Your task to perform on an android device: Open Google Chrome and click the shortcut for Amazon.com Image 0: 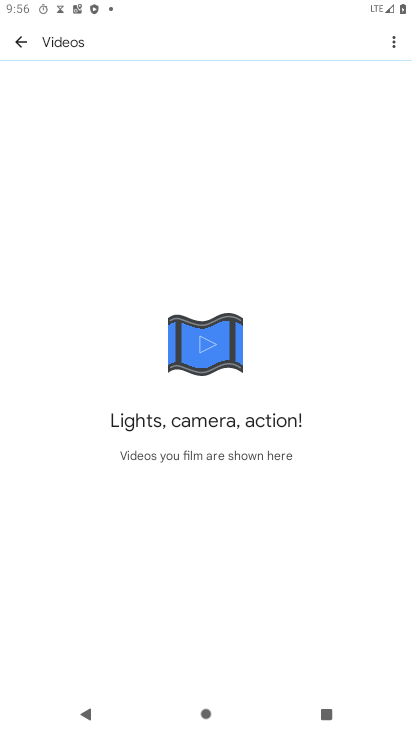
Step 0: press home button
Your task to perform on an android device: Open Google Chrome and click the shortcut for Amazon.com Image 1: 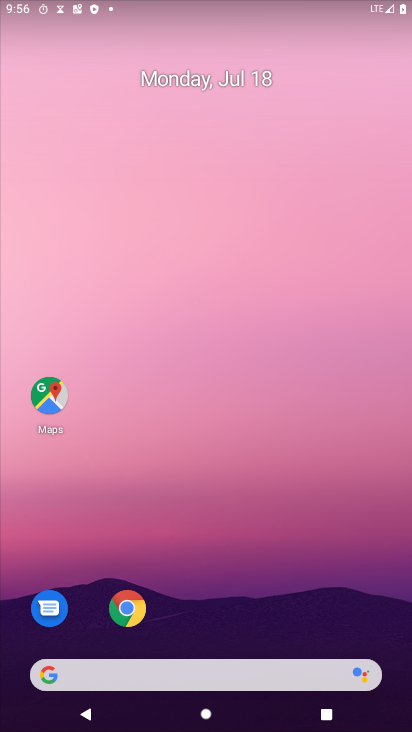
Step 1: click (138, 604)
Your task to perform on an android device: Open Google Chrome and click the shortcut for Amazon.com Image 2: 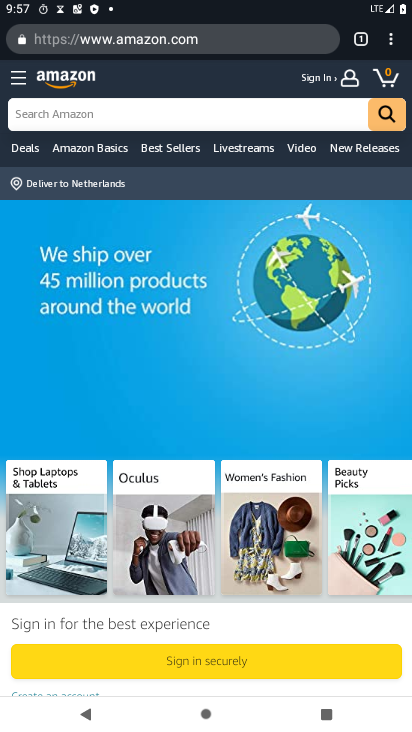
Step 2: click (354, 36)
Your task to perform on an android device: Open Google Chrome and click the shortcut for Amazon.com Image 3: 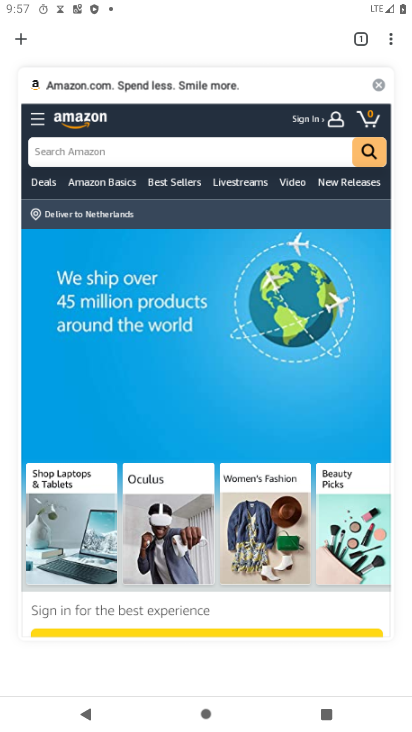
Step 3: click (378, 85)
Your task to perform on an android device: Open Google Chrome and click the shortcut for Amazon.com Image 4: 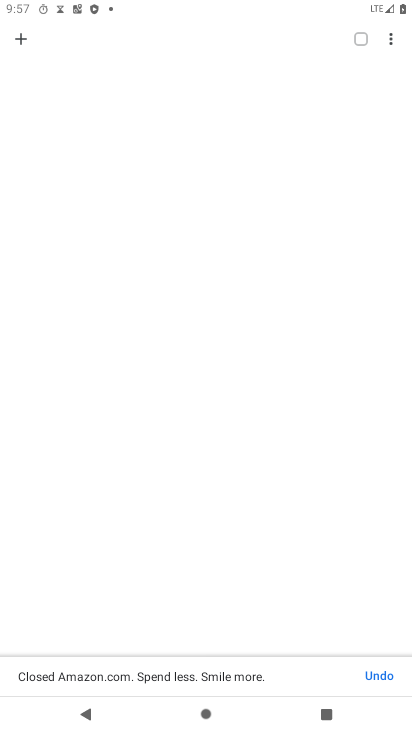
Step 4: click (18, 37)
Your task to perform on an android device: Open Google Chrome and click the shortcut for Amazon.com Image 5: 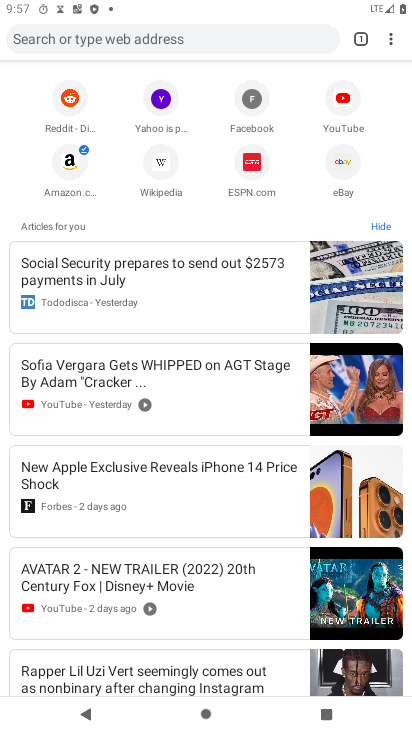
Step 5: click (18, 37)
Your task to perform on an android device: Open Google Chrome and click the shortcut for Amazon.com Image 6: 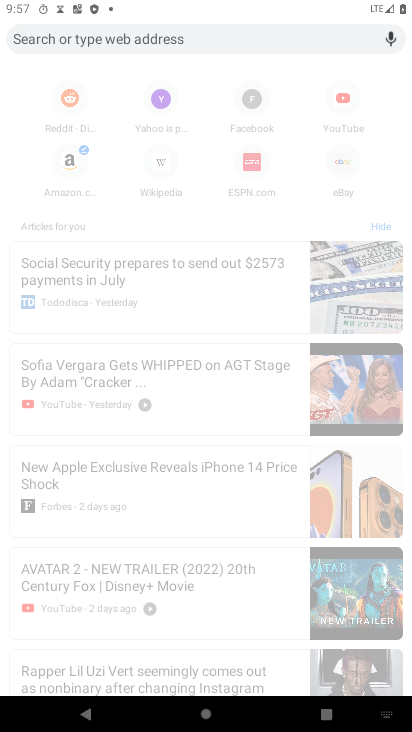
Step 6: click (74, 148)
Your task to perform on an android device: Open Google Chrome and click the shortcut for Amazon.com Image 7: 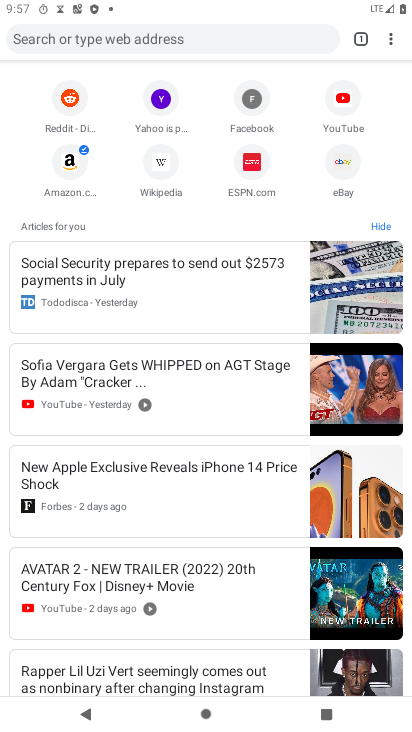
Step 7: click (79, 180)
Your task to perform on an android device: Open Google Chrome and click the shortcut for Amazon.com Image 8: 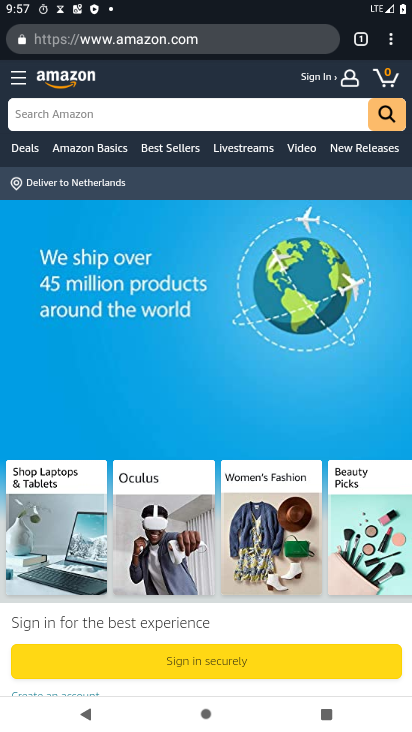
Step 8: task complete